Your task to perform on an android device: search for starred emails in the gmail app Image 0: 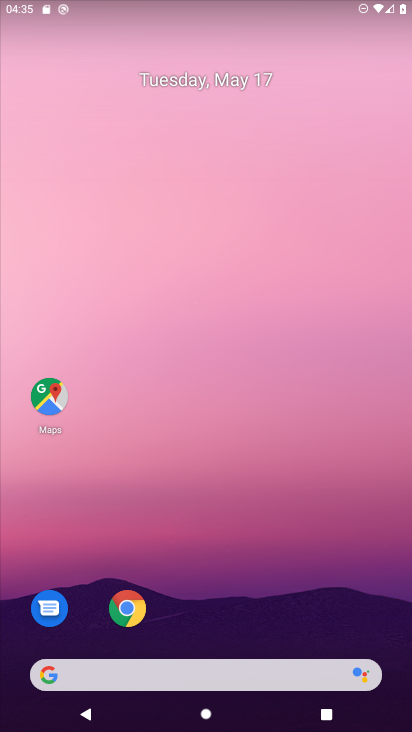
Step 0: drag from (238, 661) to (271, 259)
Your task to perform on an android device: search for starred emails in the gmail app Image 1: 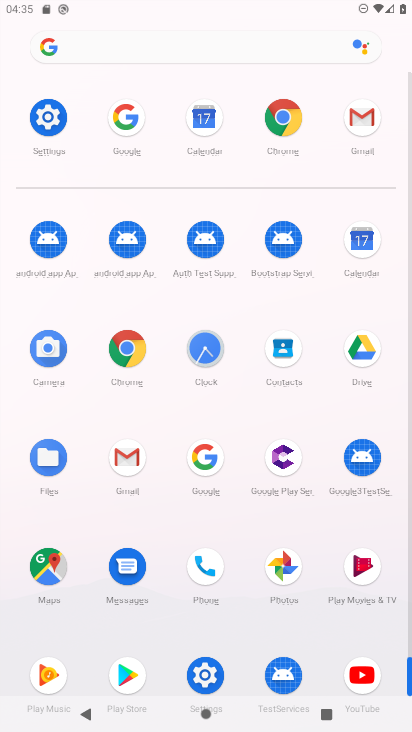
Step 1: click (364, 126)
Your task to perform on an android device: search for starred emails in the gmail app Image 2: 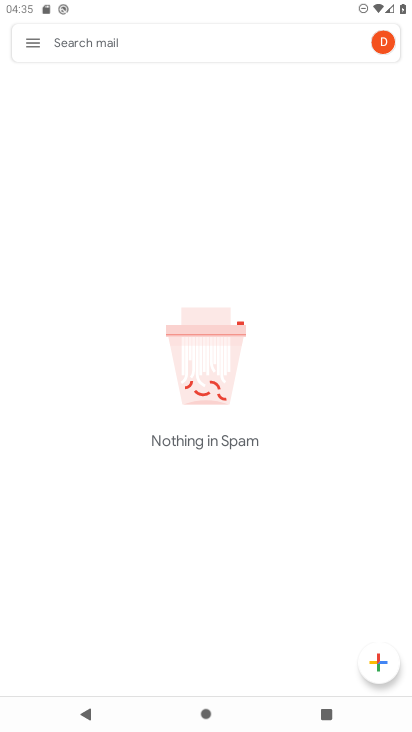
Step 2: click (30, 35)
Your task to perform on an android device: search for starred emails in the gmail app Image 3: 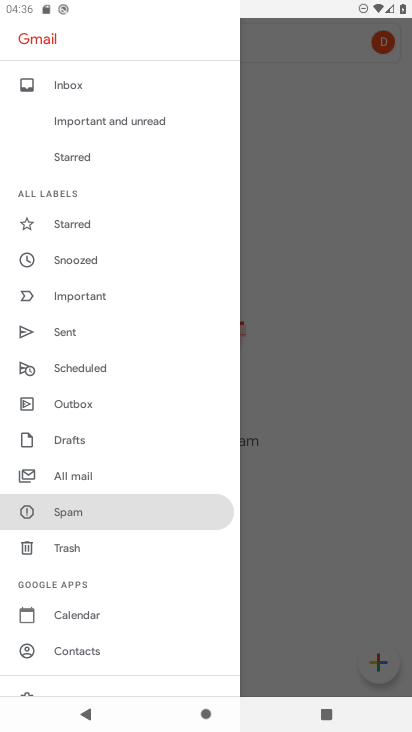
Step 3: click (60, 86)
Your task to perform on an android device: search for starred emails in the gmail app Image 4: 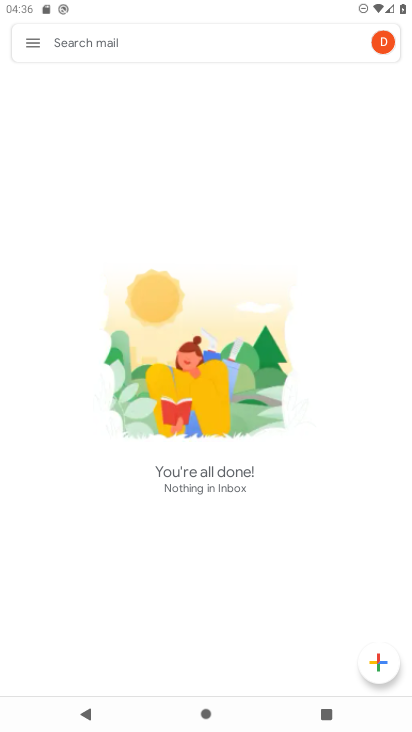
Step 4: click (36, 42)
Your task to perform on an android device: search for starred emails in the gmail app Image 5: 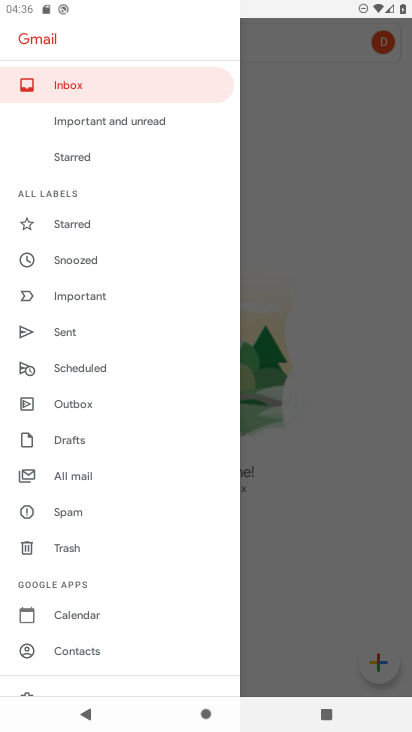
Step 5: click (66, 221)
Your task to perform on an android device: search for starred emails in the gmail app Image 6: 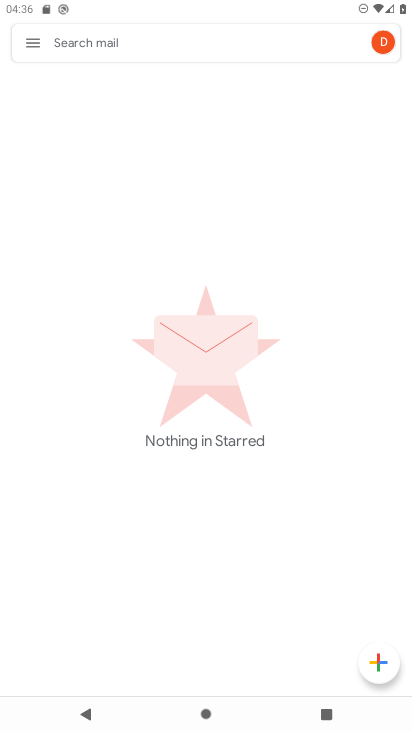
Step 6: task complete